Your task to perform on an android device: change the upload size in google photos Image 0: 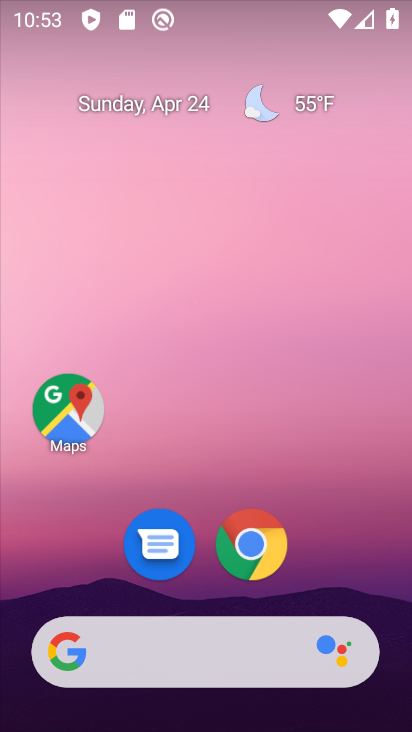
Step 0: drag from (341, 513) to (273, 115)
Your task to perform on an android device: change the upload size in google photos Image 1: 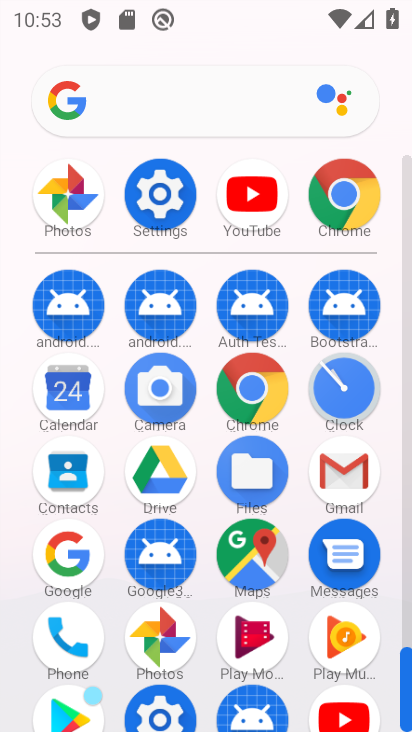
Step 1: click (63, 196)
Your task to perform on an android device: change the upload size in google photos Image 2: 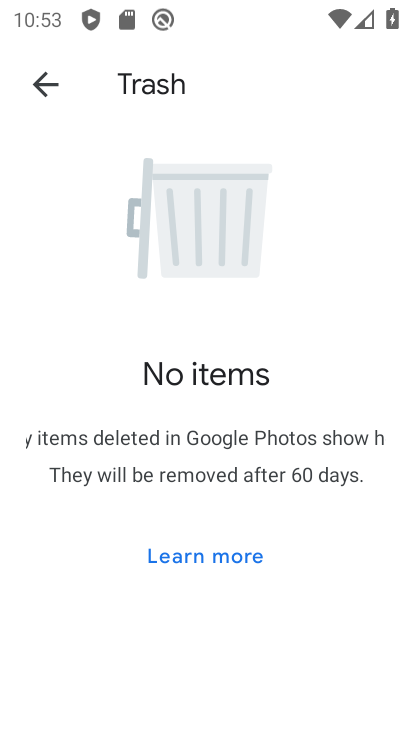
Step 2: click (42, 89)
Your task to perform on an android device: change the upload size in google photos Image 3: 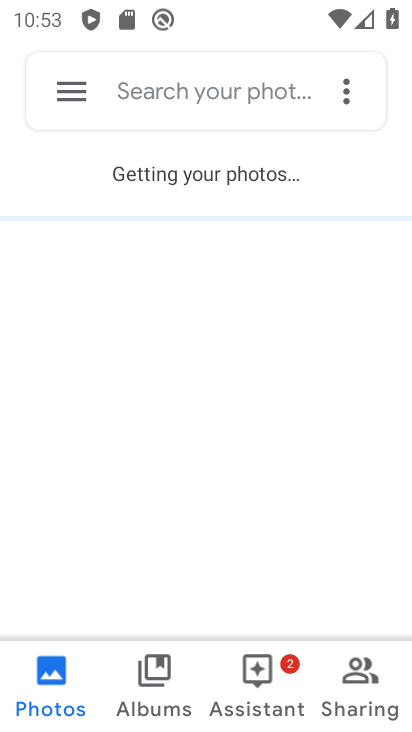
Step 3: click (71, 89)
Your task to perform on an android device: change the upload size in google photos Image 4: 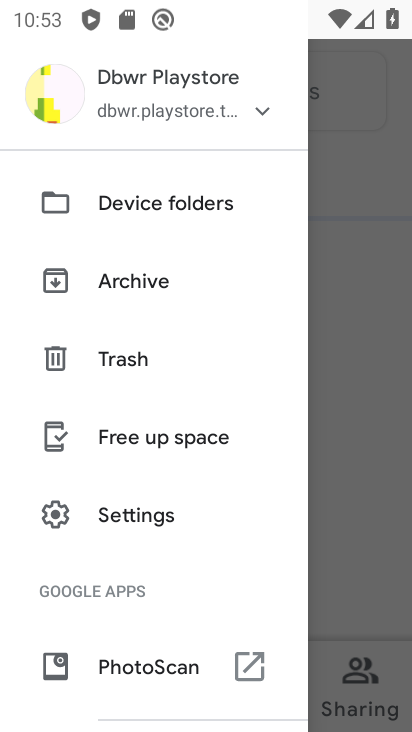
Step 4: click (132, 518)
Your task to perform on an android device: change the upload size in google photos Image 5: 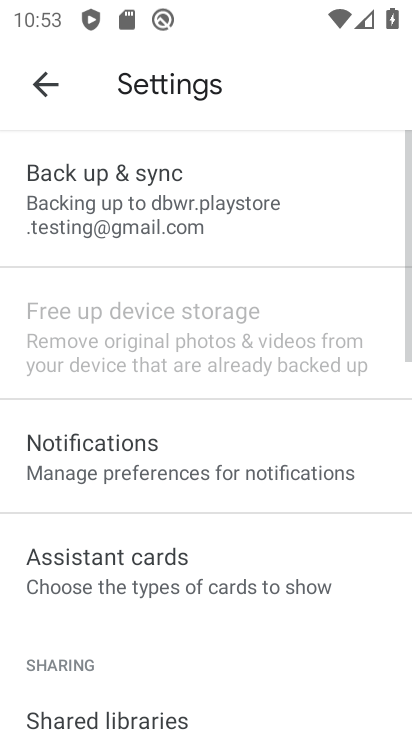
Step 5: click (116, 214)
Your task to perform on an android device: change the upload size in google photos Image 6: 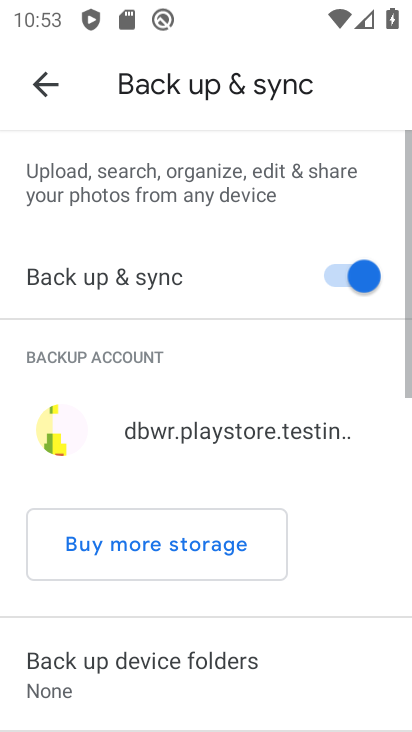
Step 6: drag from (148, 691) to (174, 248)
Your task to perform on an android device: change the upload size in google photos Image 7: 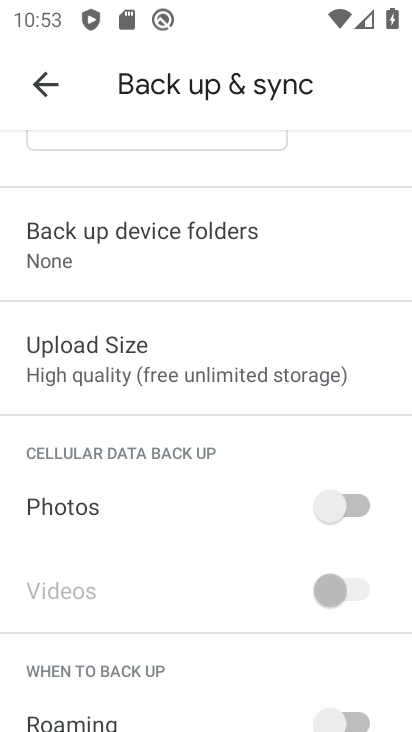
Step 7: click (103, 361)
Your task to perform on an android device: change the upload size in google photos Image 8: 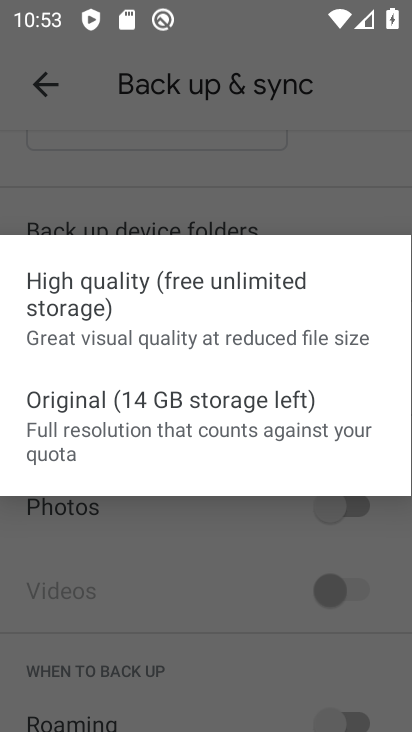
Step 8: click (100, 419)
Your task to perform on an android device: change the upload size in google photos Image 9: 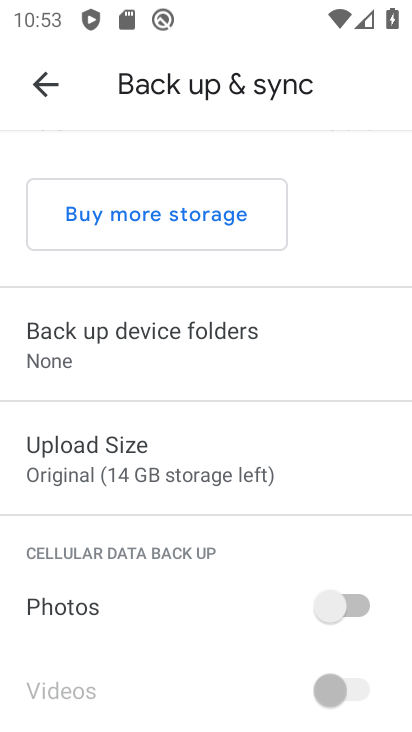
Step 9: task complete